Your task to perform on an android device: Set the phone to "Do not disturb". Image 0: 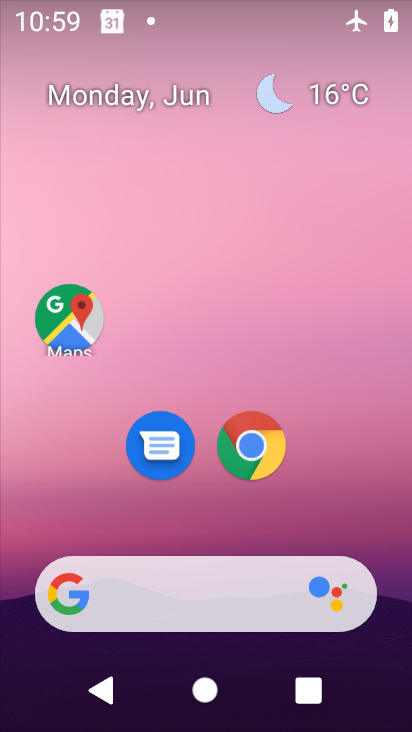
Step 0: press home button
Your task to perform on an android device: Set the phone to "Do not disturb". Image 1: 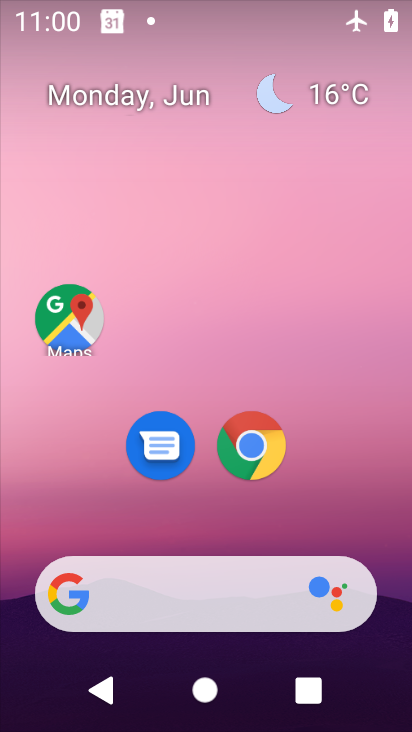
Step 1: drag from (189, 8) to (144, 727)
Your task to perform on an android device: Set the phone to "Do not disturb". Image 2: 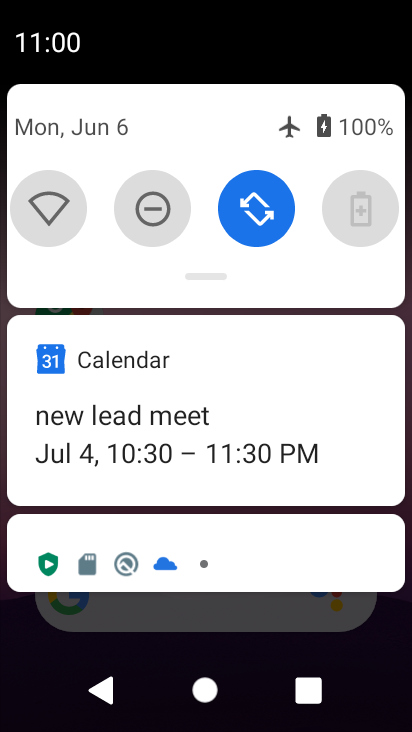
Step 2: click (145, 214)
Your task to perform on an android device: Set the phone to "Do not disturb". Image 3: 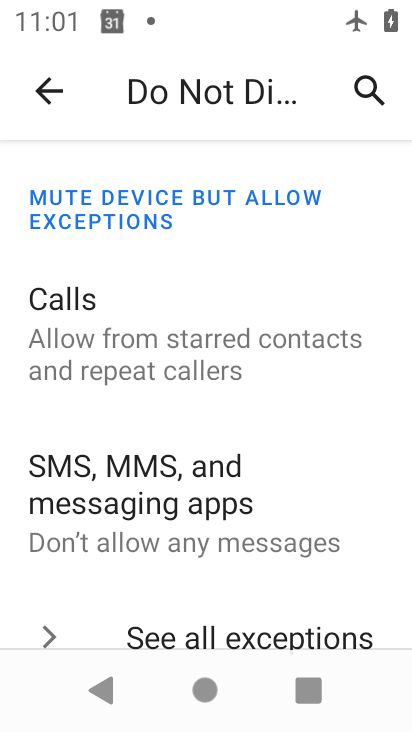
Step 3: task complete